Your task to perform on an android device: Is it going to rain today? Image 0: 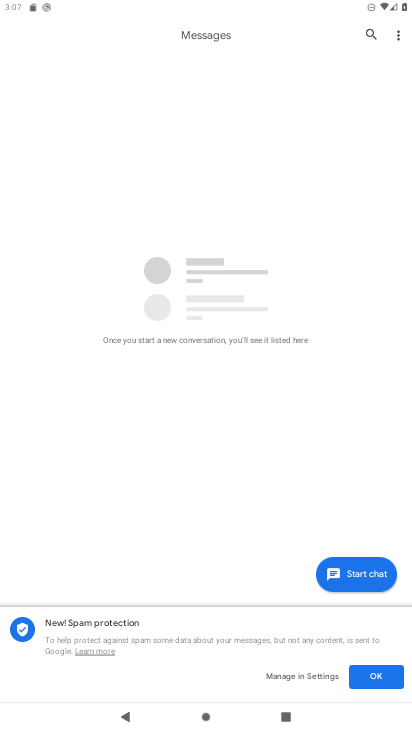
Step 0: press home button
Your task to perform on an android device: Is it going to rain today? Image 1: 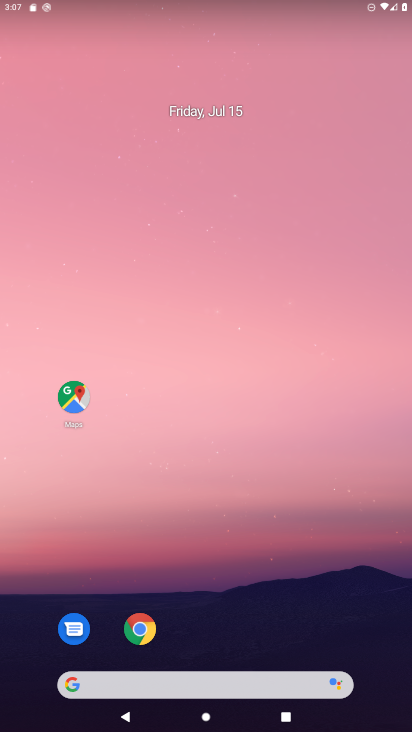
Step 1: drag from (264, 484) to (173, 8)
Your task to perform on an android device: Is it going to rain today? Image 2: 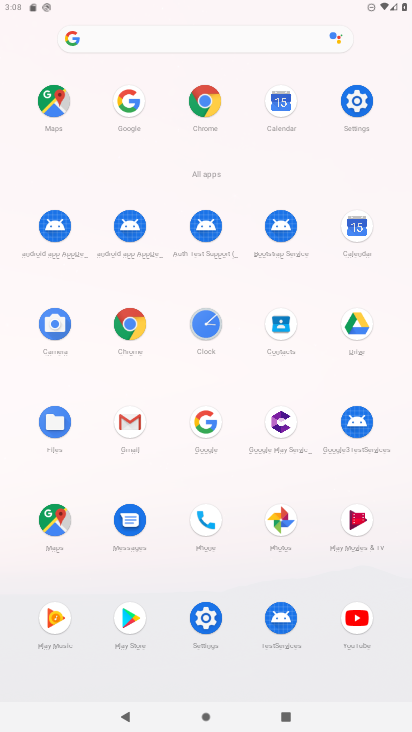
Step 2: click (199, 437)
Your task to perform on an android device: Is it going to rain today? Image 3: 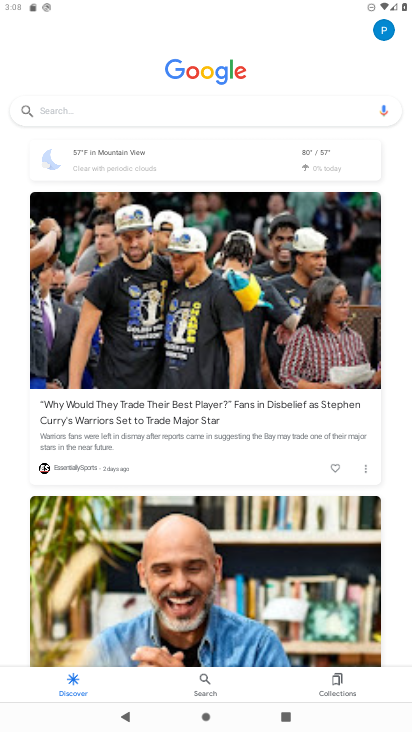
Step 3: click (160, 144)
Your task to perform on an android device: Is it going to rain today? Image 4: 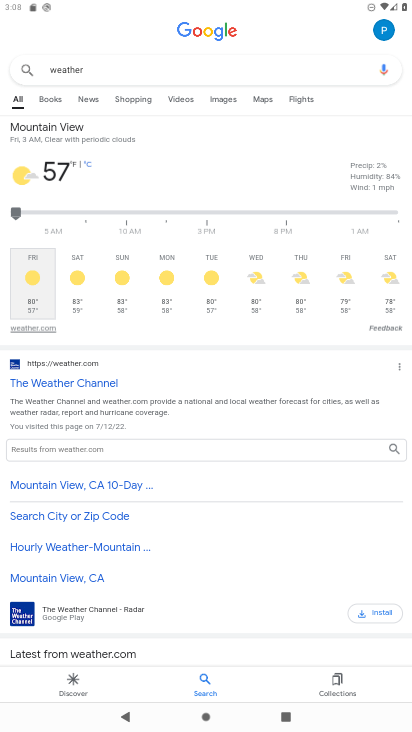
Step 4: task complete